Your task to perform on an android device: Search for "alienware aurora" on newegg.com, select the first entry, add it to the cart, then select checkout. Image 0: 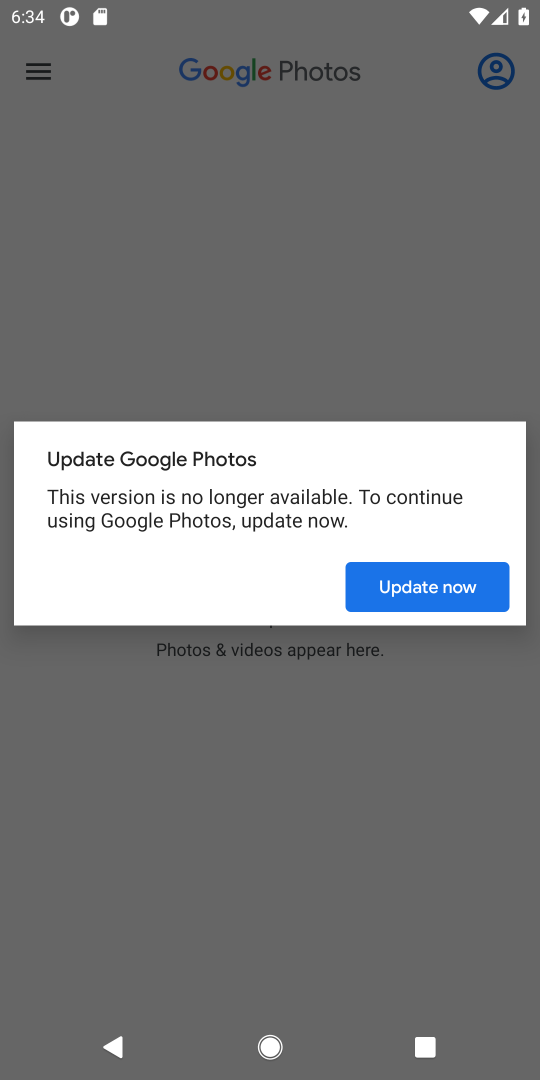
Step 0: press home button
Your task to perform on an android device: Search for "alienware aurora" on newegg.com, select the first entry, add it to the cart, then select checkout. Image 1: 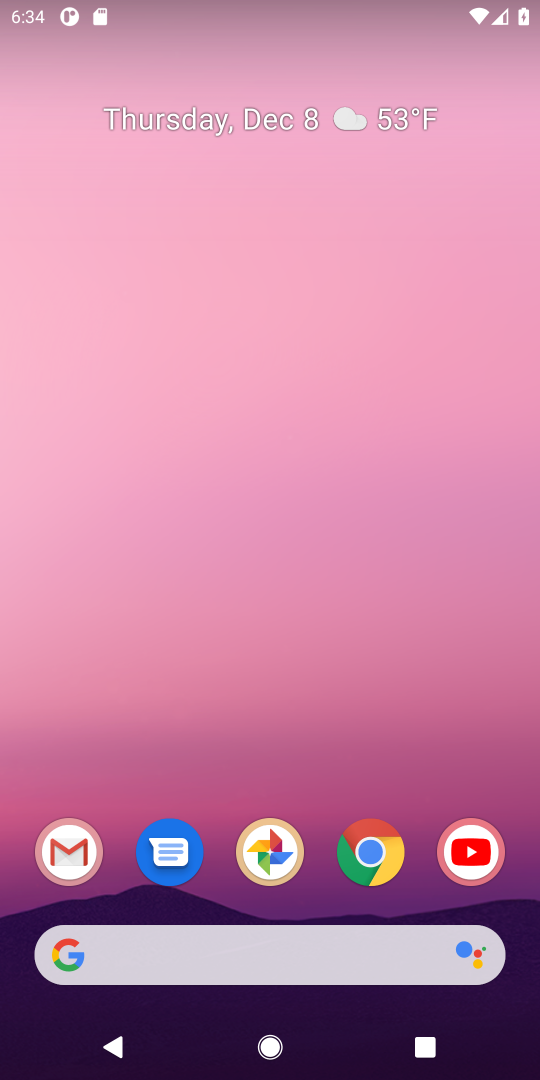
Step 1: click (289, 937)
Your task to perform on an android device: Search for "alienware aurora" on newegg.com, select the first entry, add it to the cart, then select checkout. Image 2: 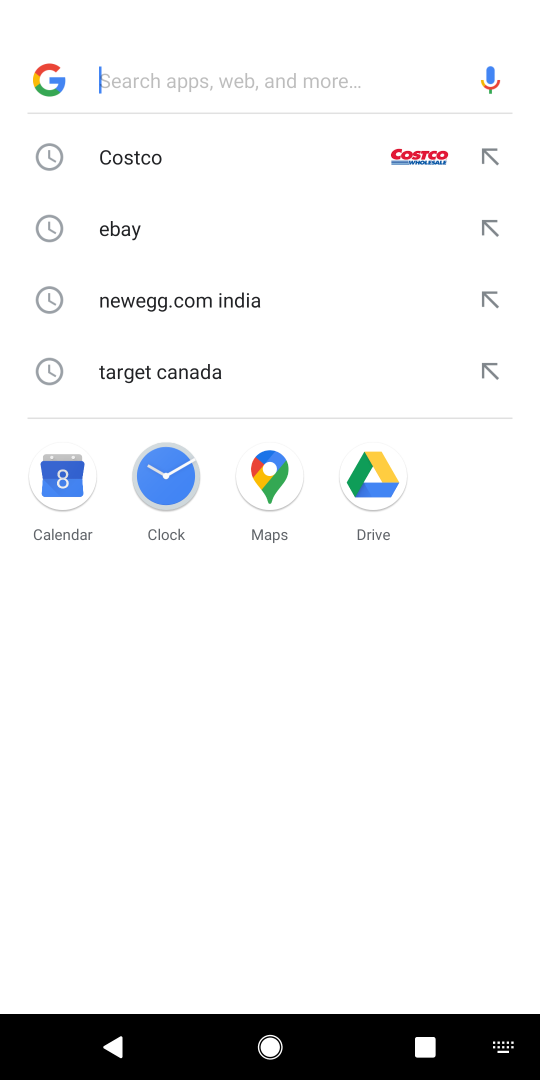
Step 2: type "newegg"
Your task to perform on an android device: Search for "alienware aurora" on newegg.com, select the first entry, add it to the cart, then select checkout. Image 3: 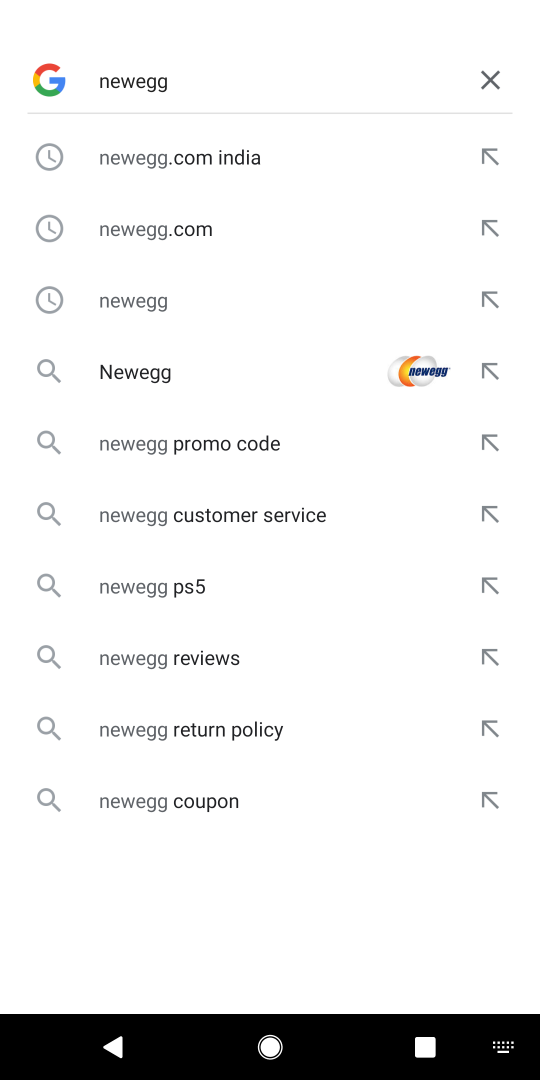
Step 3: click (181, 226)
Your task to perform on an android device: Search for "alienware aurora" on newegg.com, select the first entry, add it to the cart, then select checkout. Image 4: 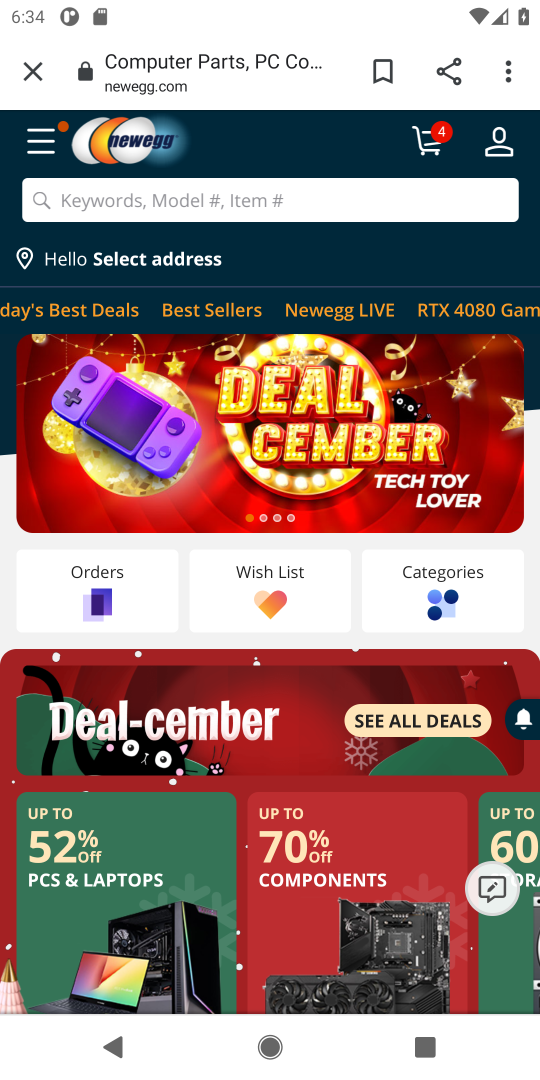
Step 4: click (215, 200)
Your task to perform on an android device: Search for "alienware aurora" on newegg.com, select the first entry, add it to the cart, then select checkout. Image 5: 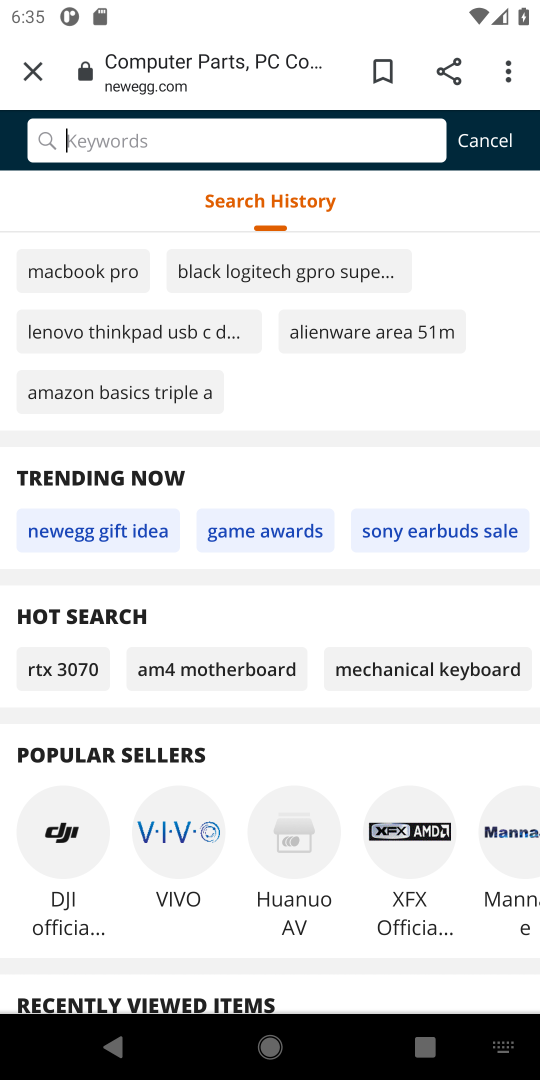
Step 5: type "alienware aura"
Your task to perform on an android device: Search for "alienware aurora" on newegg.com, select the first entry, add it to the cart, then select checkout. Image 6: 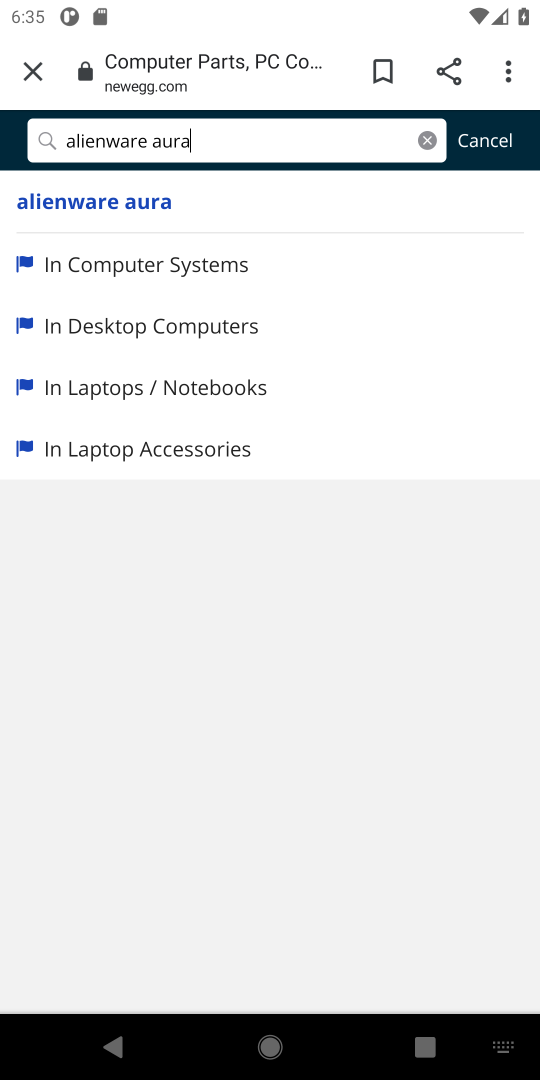
Step 6: click (151, 220)
Your task to perform on an android device: Search for "alienware aurora" on newegg.com, select the first entry, add it to the cart, then select checkout. Image 7: 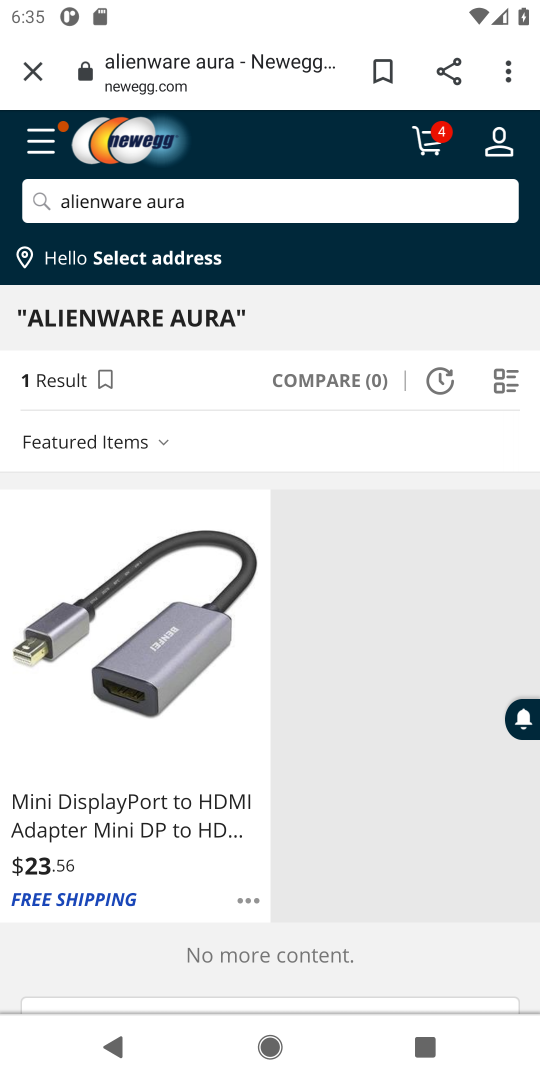
Step 7: click (188, 332)
Your task to perform on an android device: Search for "alienware aurora" on newegg.com, select the first entry, add it to the cart, then select checkout. Image 8: 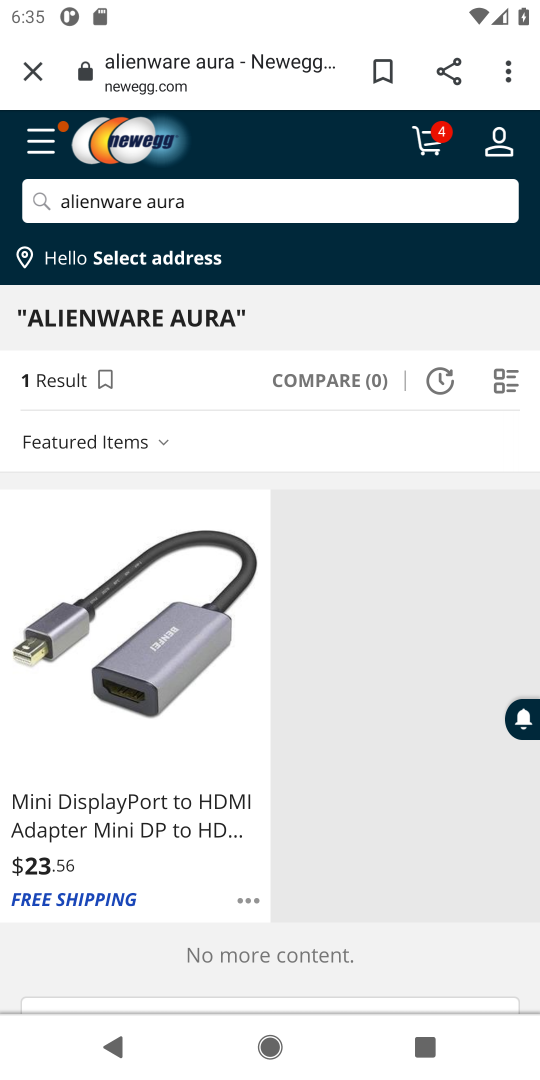
Step 8: click (410, 219)
Your task to perform on an android device: Search for "alienware aurora" on newegg.com, select the first entry, add it to the cart, then select checkout. Image 9: 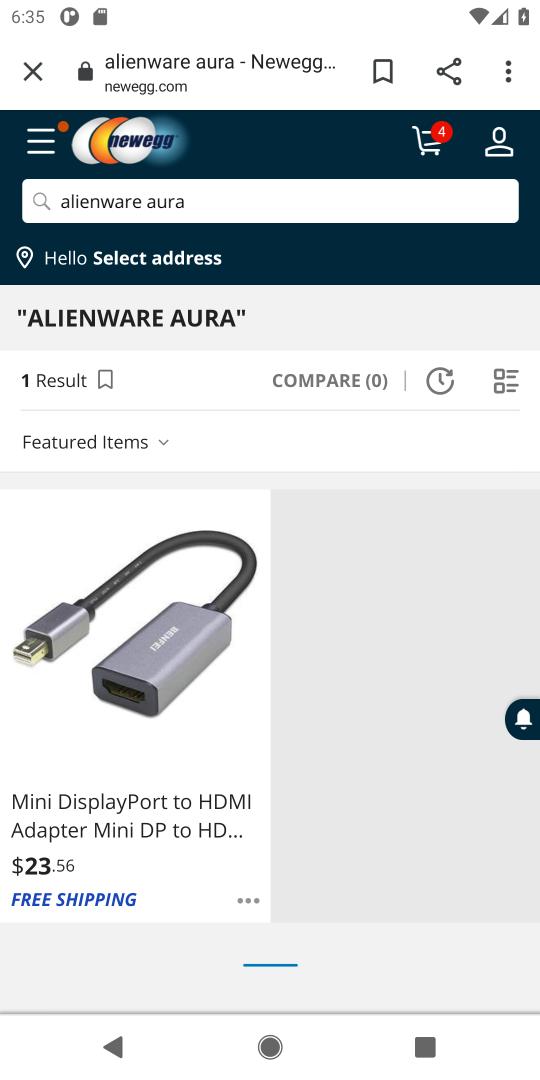
Step 9: click (392, 210)
Your task to perform on an android device: Search for "alienware aurora" on newegg.com, select the first entry, add it to the cart, then select checkout. Image 10: 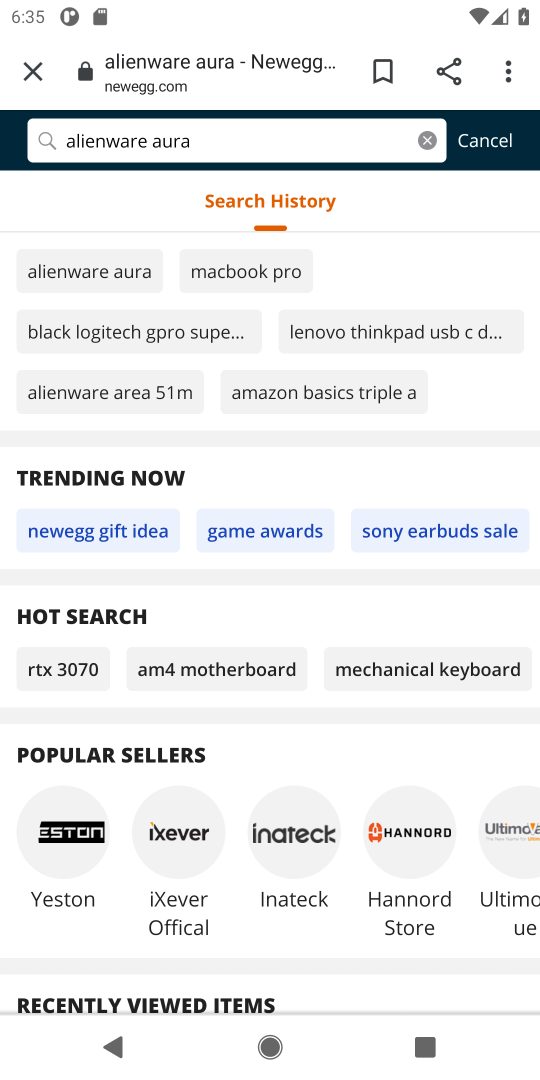
Step 10: type "alienware aurora"
Your task to perform on an android device: Search for "alienware aurora" on newegg.com, select the first entry, add it to the cart, then select checkout. Image 11: 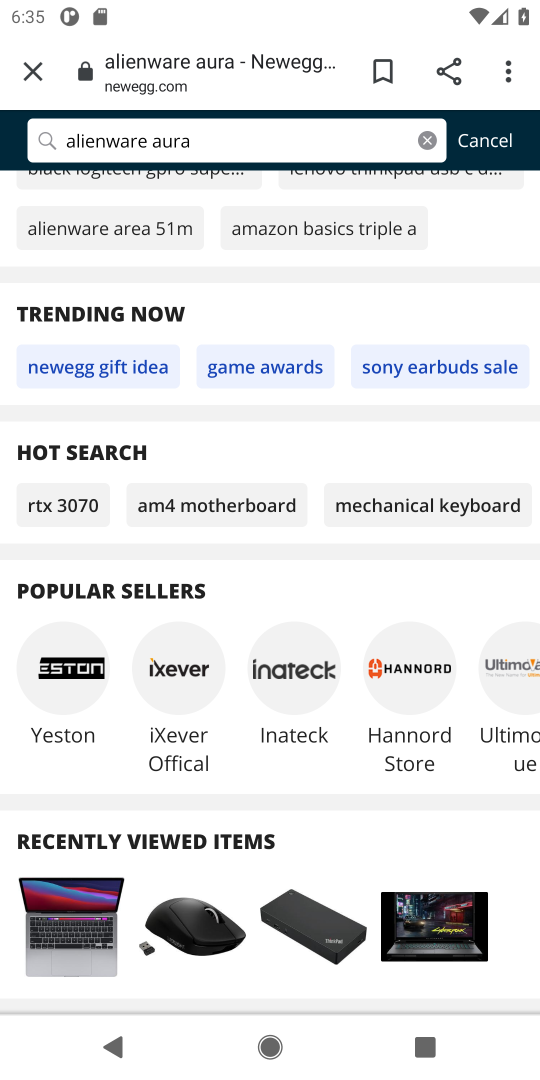
Step 11: drag from (248, 306) to (297, 601)
Your task to perform on an android device: Search for "alienware aurora" on newegg.com, select the first entry, add it to the cart, then select checkout. Image 12: 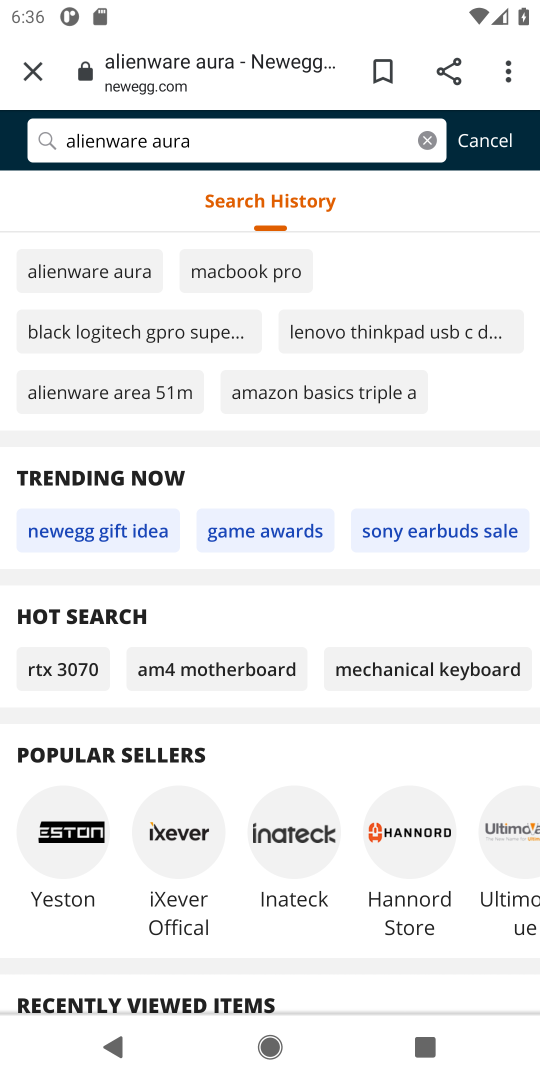
Step 12: drag from (156, 288) to (323, 768)
Your task to perform on an android device: Search for "alienware aurora" on newegg.com, select the first entry, add it to the cart, then select checkout. Image 13: 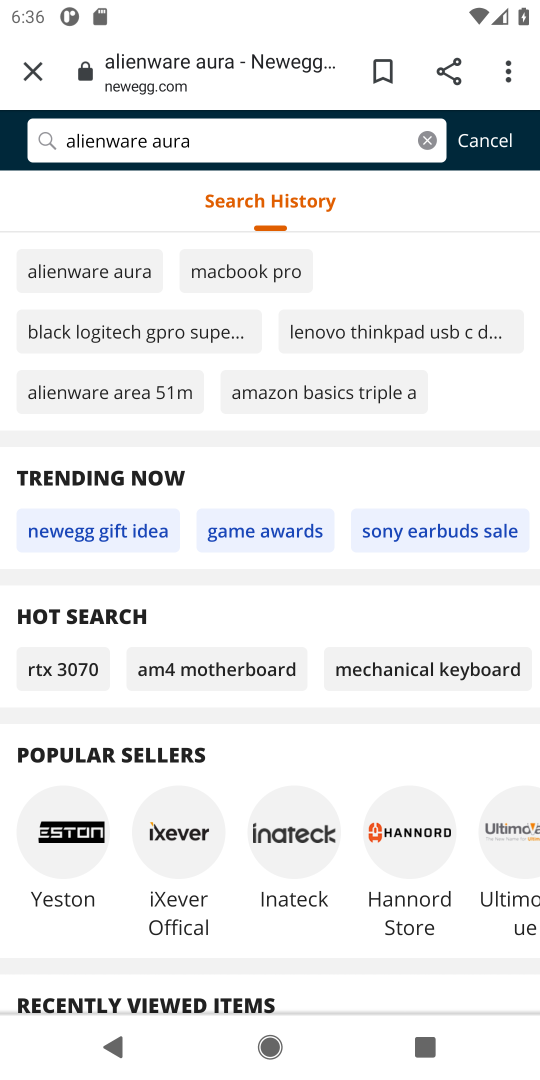
Step 13: click (171, 156)
Your task to perform on an android device: Search for "alienware aurora" on newegg.com, select the first entry, add it to the cart, then select checkout. Image 14: 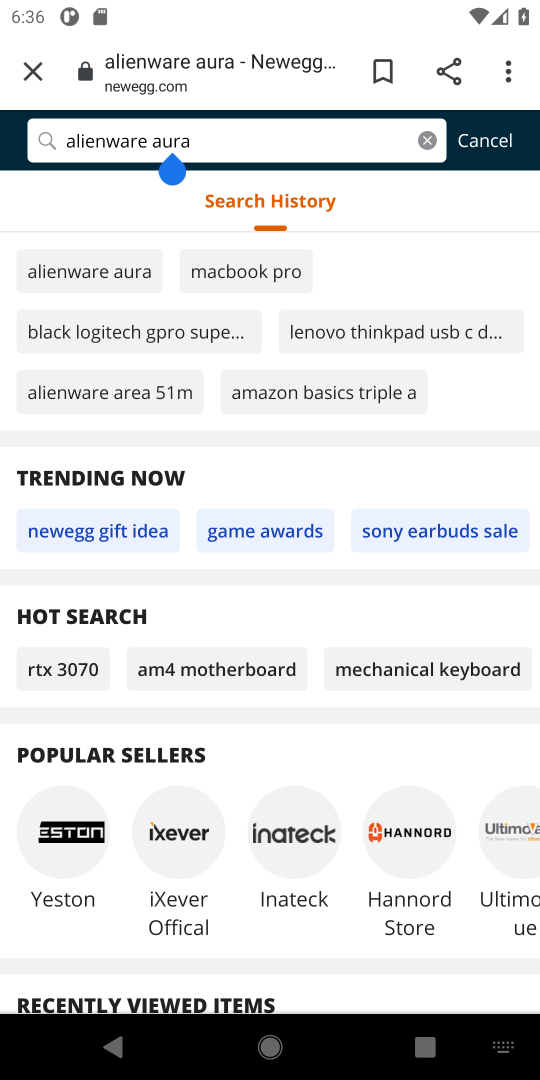
Step 14: task complete